Your task to perform on an android device: snooze an email in the gmail app Image 0: 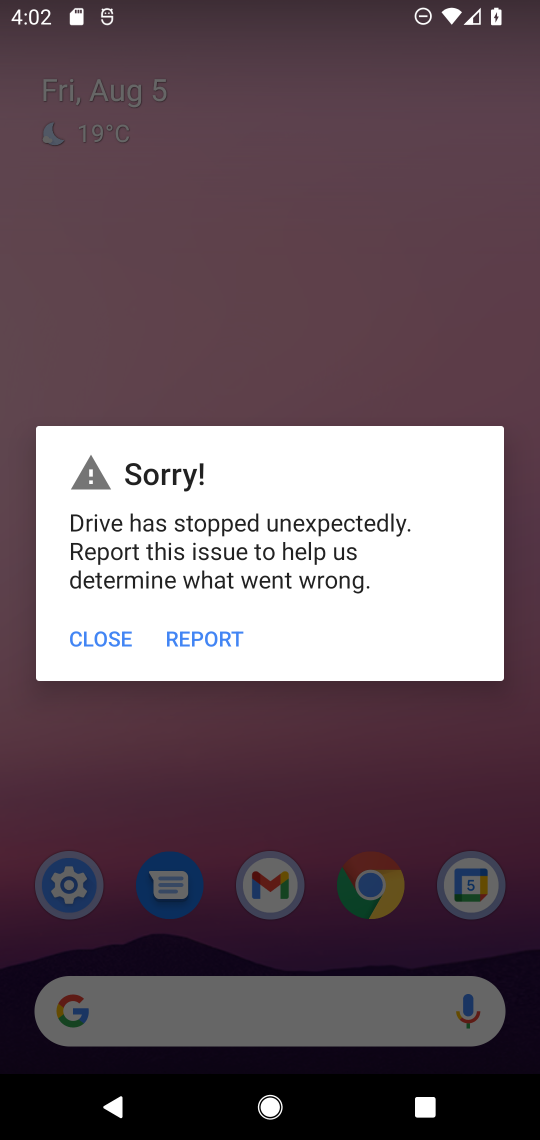
Step 0: press home button
Your task to perform on an android device: snooze an email in the gmail app Image 1: 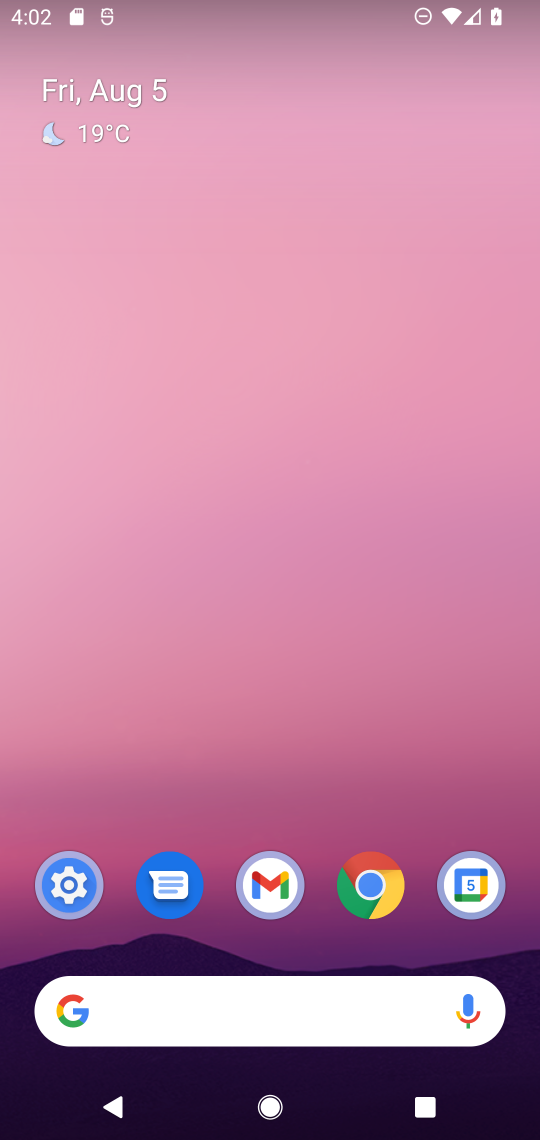
Step 1: drag from (334, 893) to (309, 0)
Your task to perform on an android device: snooze an email in the gmail app Image 2: 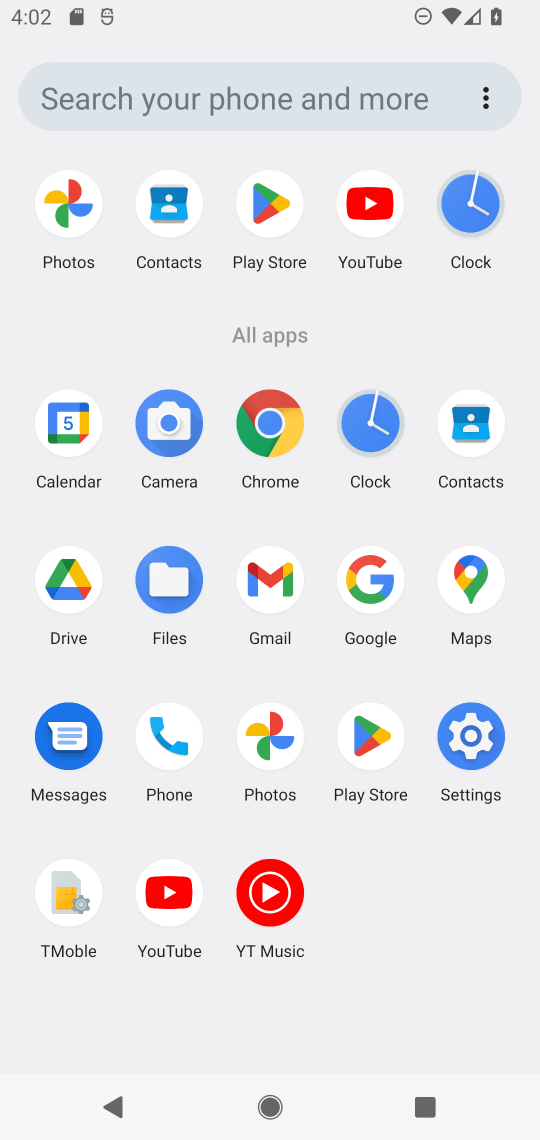
Step 2: click (276, 566)
Your task to perform on an android device: snooze an email in the gmail app Image 3: 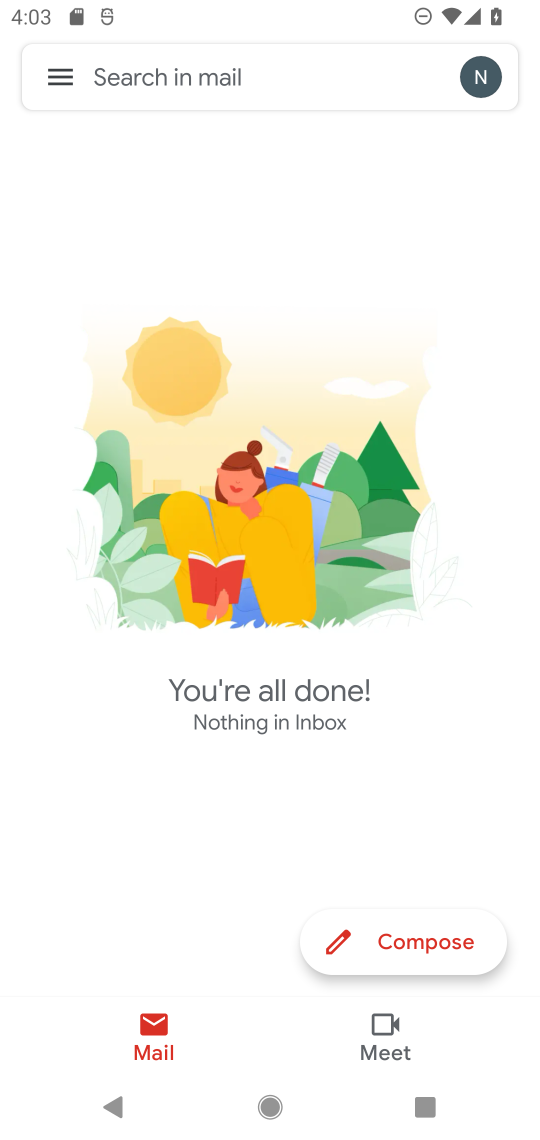
Step 3: task complete